Your task to perform on an android device: toggle data saver in the chrome app Image 0: 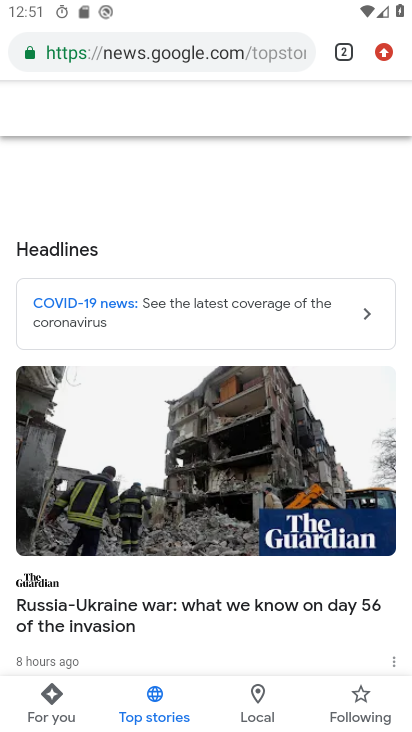
Step 0: drag from (223, 466) to (308, 157)
Your task to perform on an android device: toggle data saver in the chrome app Image 1: 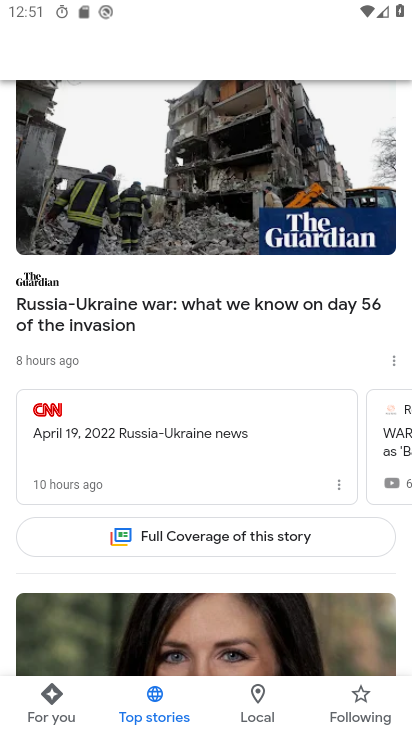
Step 1: drag from (311, 230) to (344, 397)
Your task to perform on an android device: toggle data saver in the chrome app Image 2: 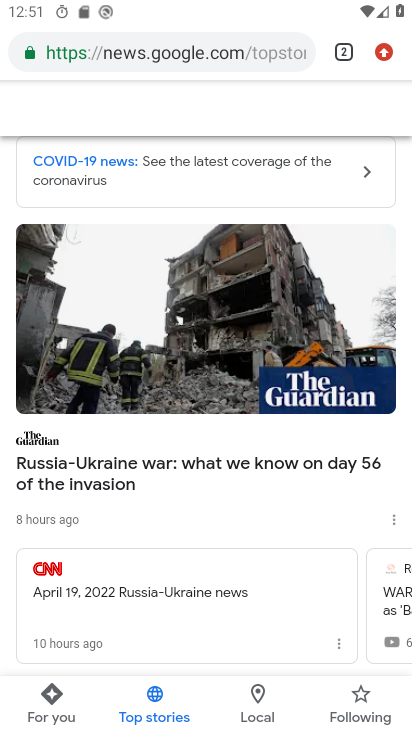
Step 2: drag from (380, 48) to (284, 658)
Your task to perform on an android device: toggle data saver in the chrome app Image 3: 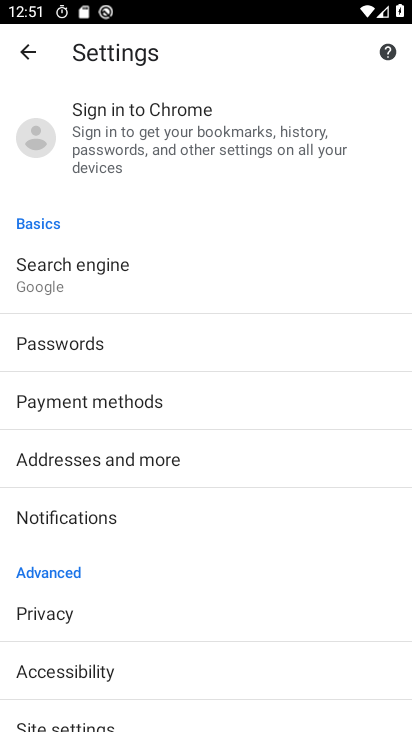
Step 3: drag from (223, 656) to (323, 228)
Your task to perform on an android device: toggle data saver in the chrome app Image 4: 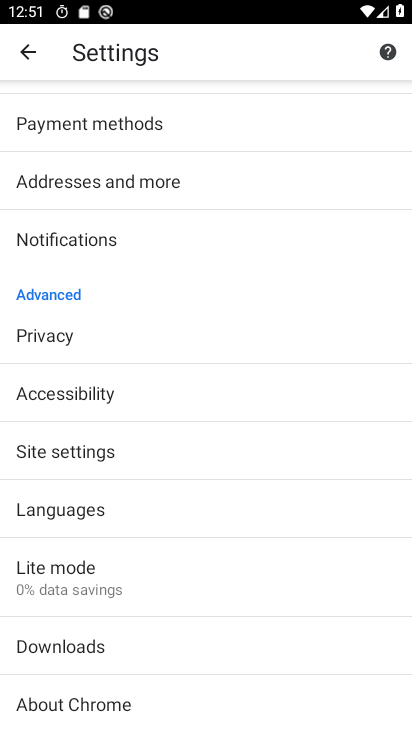
Step 4: click (116, 456)
Your task to perform on an android device: toggle data saver in the chrome app Image 5: 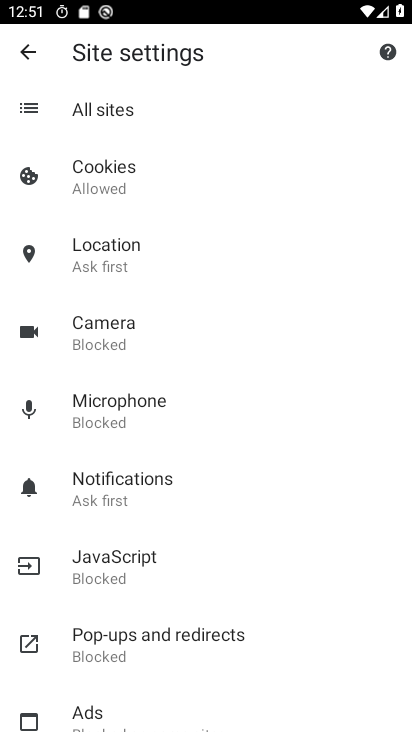
Step 5: drag from (150, 684) to (198, 308)
Your task to perform on an android device: toggle data saver in the chrome app Image 6: 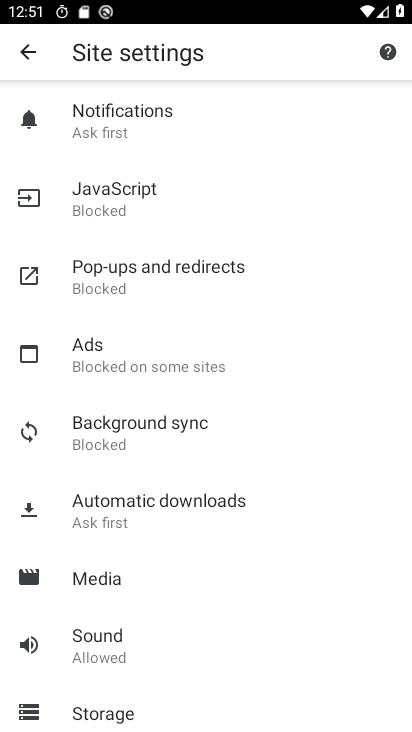
Step 6: drag from (137, 623) to (221, 268)
Your task to perform on an android device: toggle data saver in the chrome app Image 7: 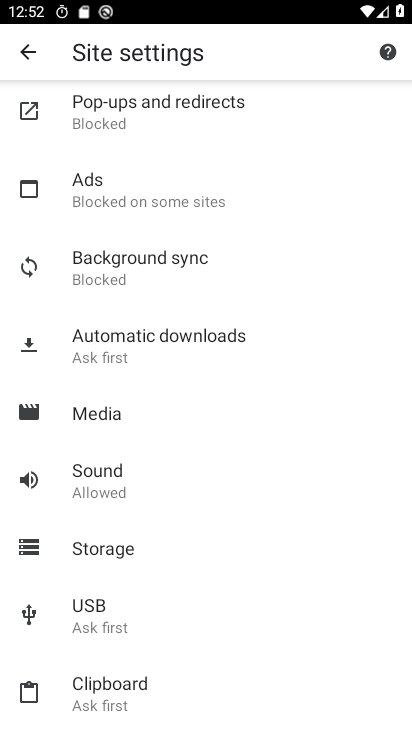
Step 7: click (32, 49)
Your task to perform on an android device: toggle data saver in the chrome app Image 8: 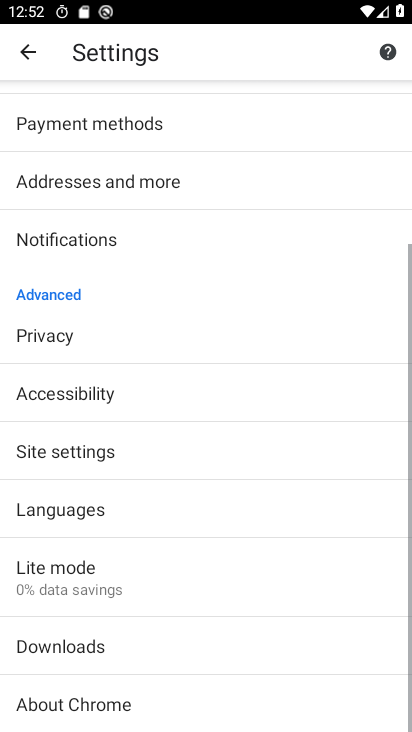
Step 8: drag from (127, 632) to (192, 132)
Your task to perform on an android device: toggle data saver in the chrome app Image 9: 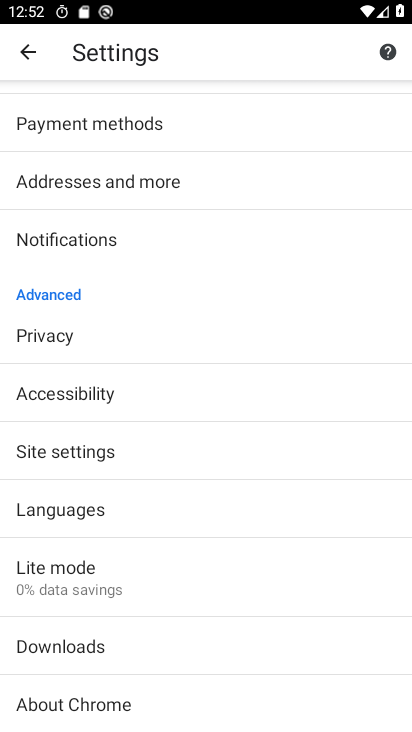
Step 9: click (107, 552)
Your task to perform on an android device: toggle data saver in the chrome app Image 10: 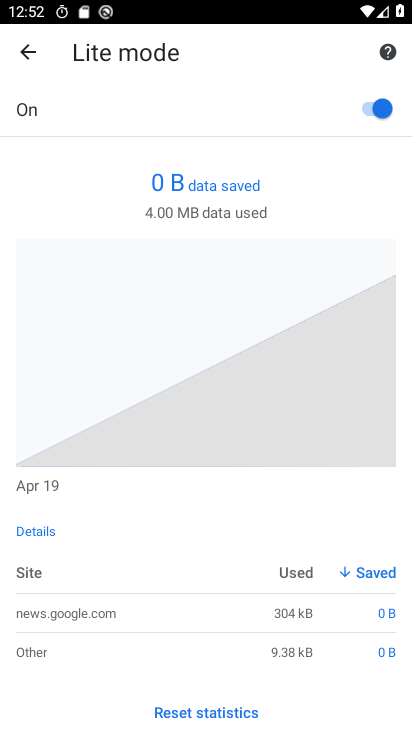
Step 10: task complete